Your task to perform on an android device: turn off data saver in the chrome app Image 0: 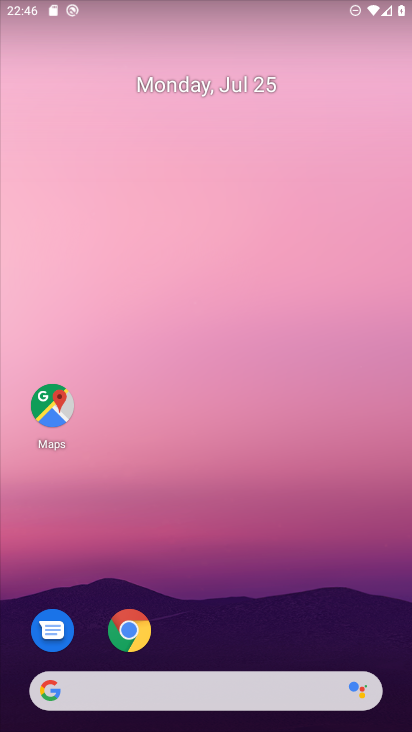
Step 0: drag from (253, 632) to (260, 92)
Your task to perform on an android device: turn off data saver in the chrome app Image 1: 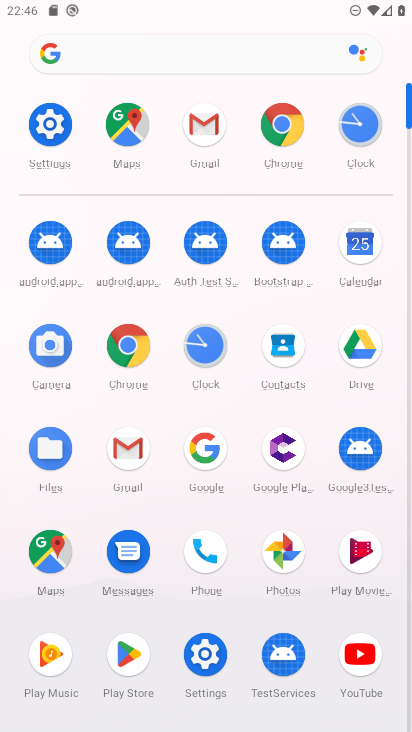
Step 1: click (285, 123)
Your task to perform on an android device: turn off data saver in the chrome app Image 2: 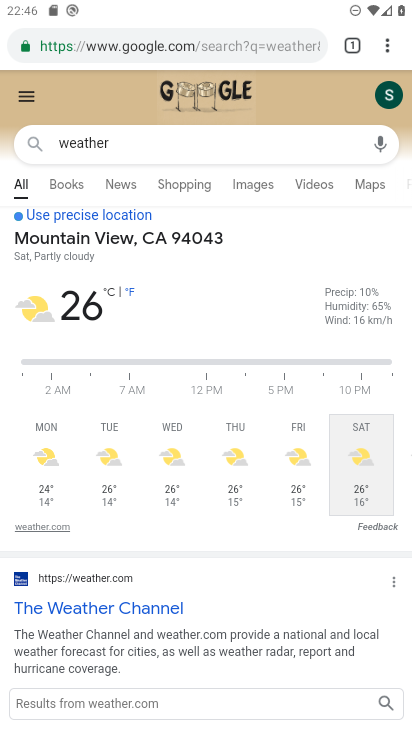
Step 2: drag from (382, 38) to (212, 558)
Your task to perform on an android device: turn off data saver in the chrome app Image 3: 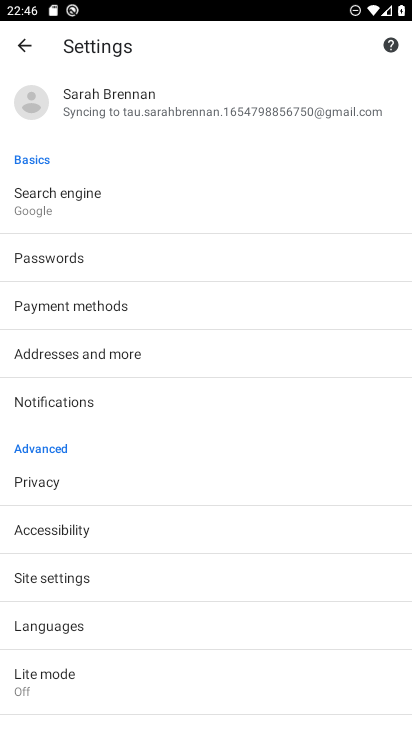
Step 3: drag from (340, 574) to (386, 102)
Your task to perform on an android device: turn off data saver in the chrome app Image 4: 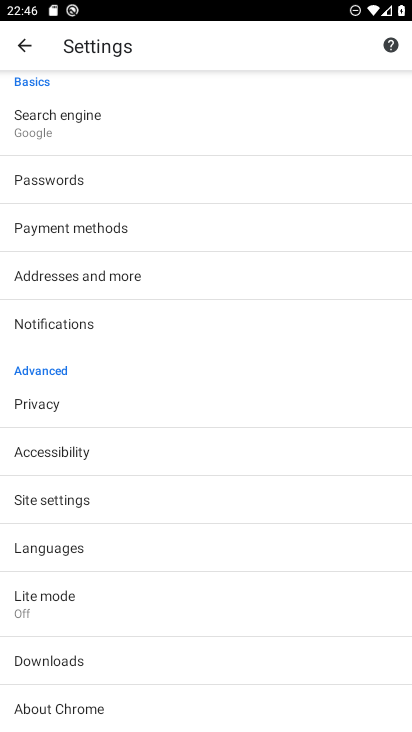
Step 4: click (142, 607)
Your task to perform on an android device: turn off data saver in the chrome app Image 5: 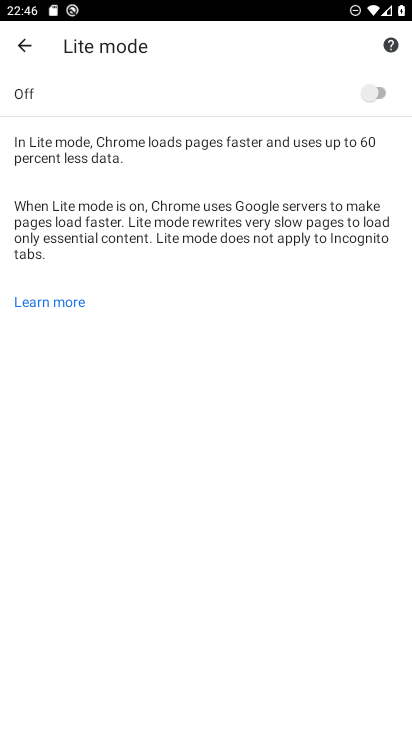
Step 5: task complete